Your task to perform on an android device: Install the Google app Image 0: 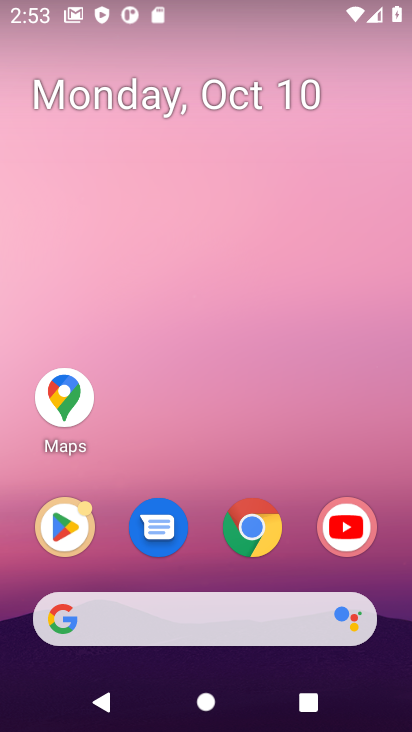
Step 0: press home button
Your task to perform on an android device: Install the Google app Image 1: 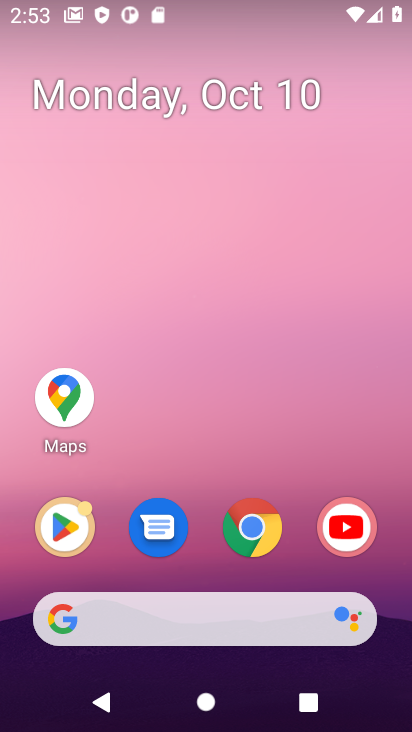
Step 1: drag from (380, 575) to (380, 136)
Your task to perform on an android device: Install the Google app Image 2: 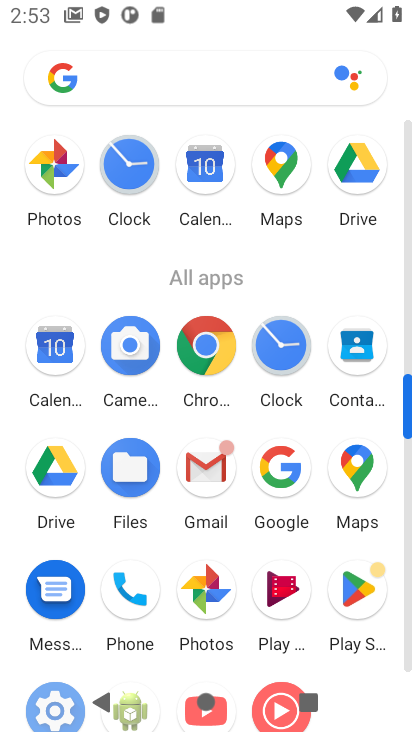
Step 2: click (356, 586)
Your task to perform on an android device: Install the Google app Image 3: 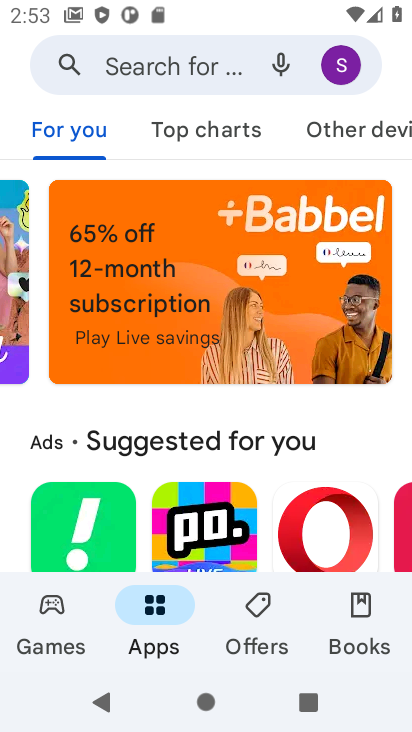
Step 3: click (191, 59)
Your task to perform on an android device: Install the Google app Image 4: 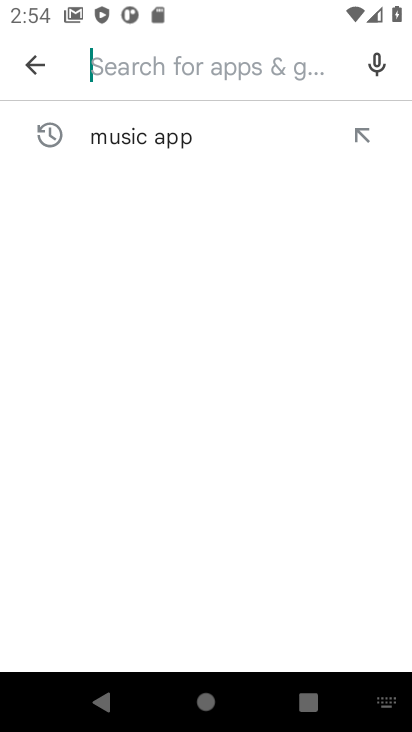
Step 4: type "google app"
Your task to perform on an android device: Install the Google app Image 5: 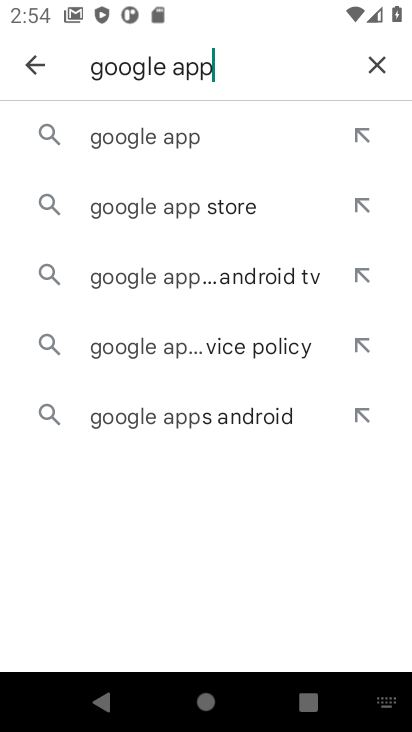
Step 5: click (190, 159)
Your task to perform on an android device: Install the Google app Image 6: 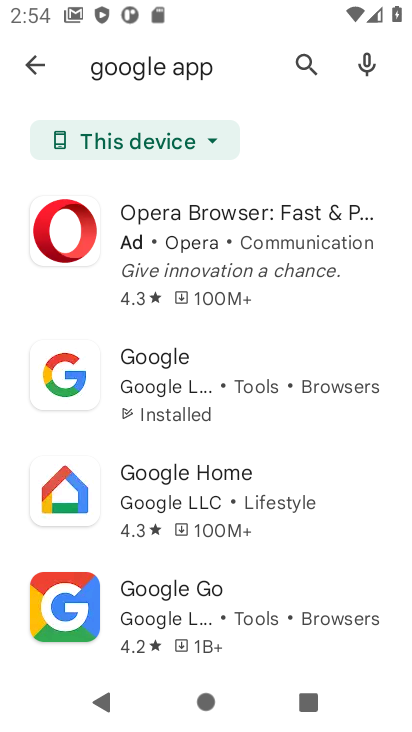
Step 6: click (175, 379)
Your task to perform on an android device: Install the Google app Image 7: 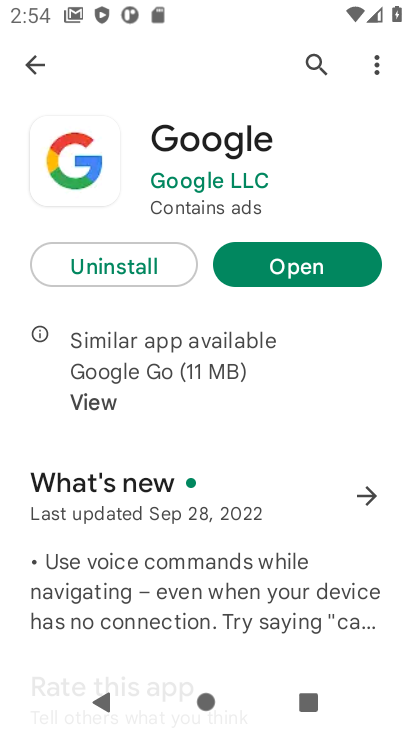
Step 7: task complete